Your task to perform on an android device: add a contact Image 0: 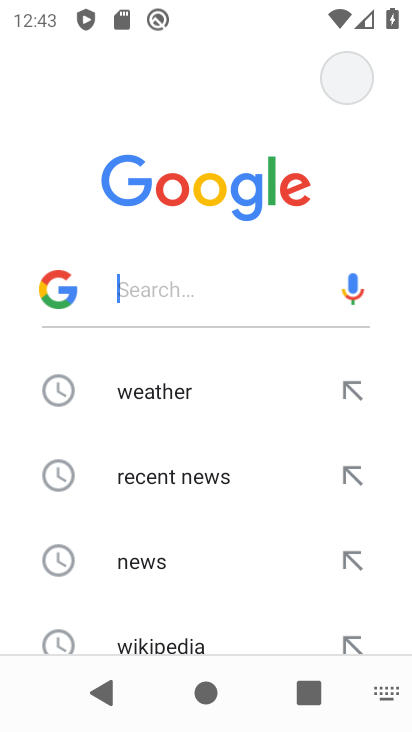
Step 0: press home button
Your task to perform on an android device: add a contact Image 1: 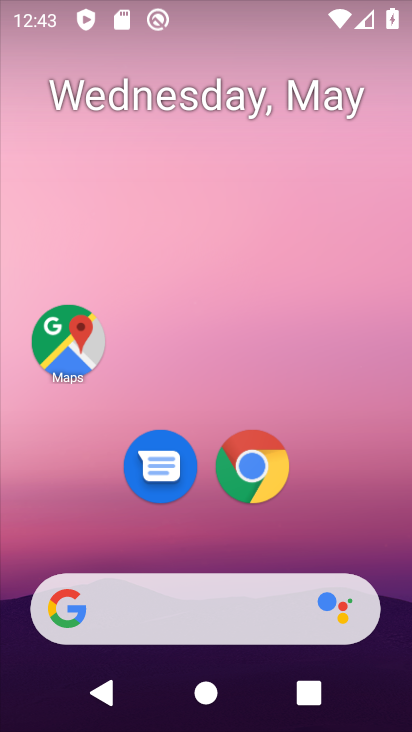
Step 1: drag from (220, 542) to (224, 111)
Your task to perform on an android device: add a contact Image 2: 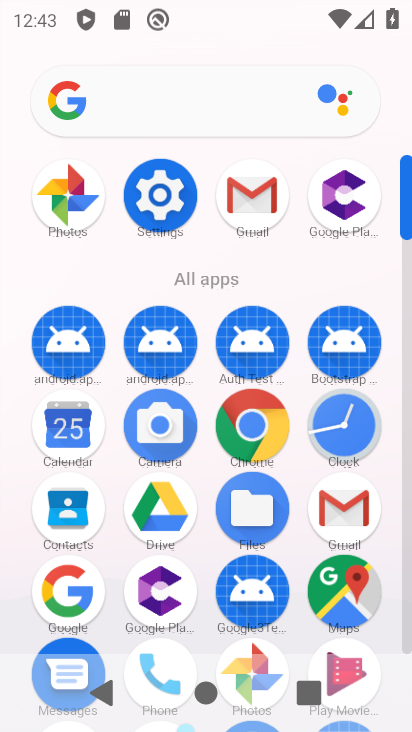
Step 2: click (74, 508)
Your task to perform on an android device: add a contact Image 3: 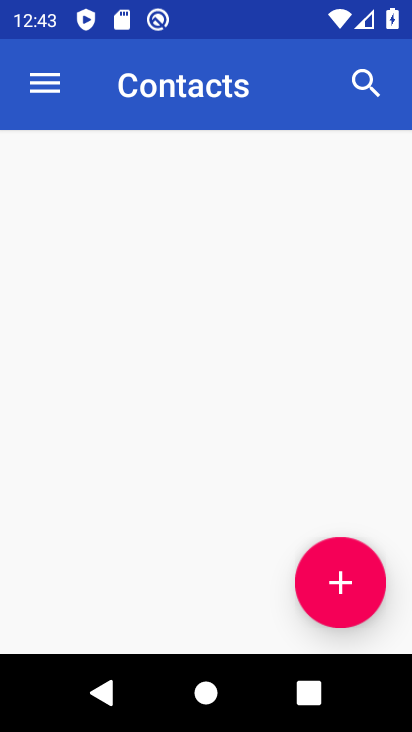
Step 3: click (353, 576)
Your task to perform on an android device: add a contact Image 4: 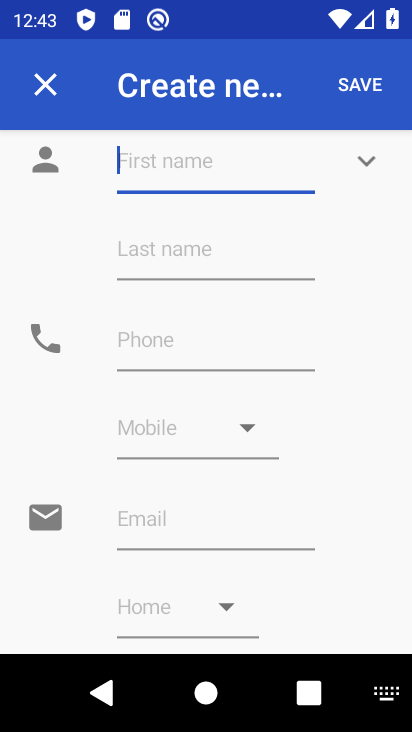
Step 4: type "ufhjvj"
Your task to perform on an android device: add a contact Image 5: 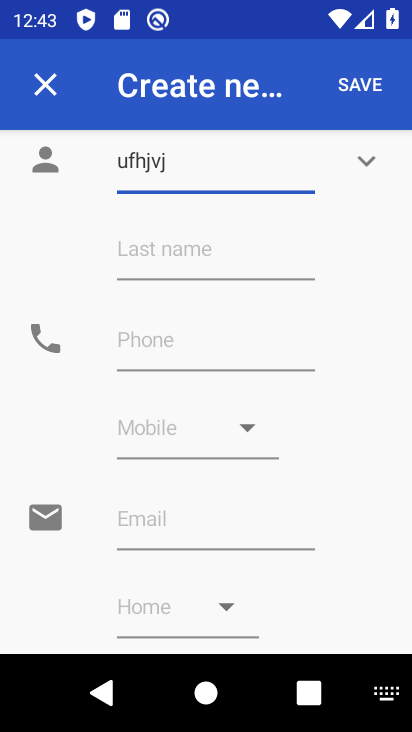
Step 5: click (363, 79)
Your task to perform on an android device: add a contact Image 6: 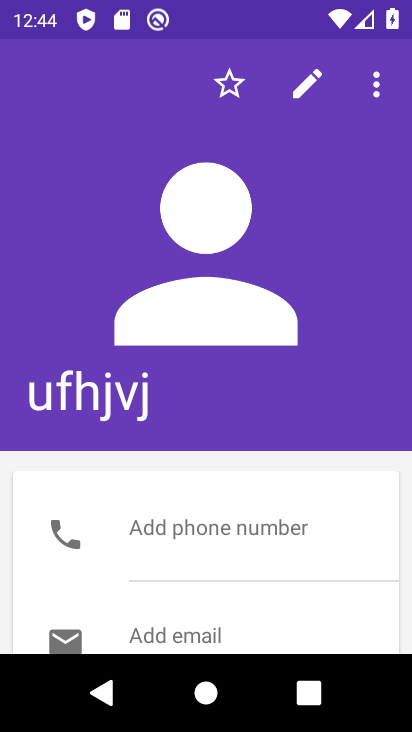
Step 6: task complete